Your task to perform on an android device: Open settings on Google Maps Image 0: 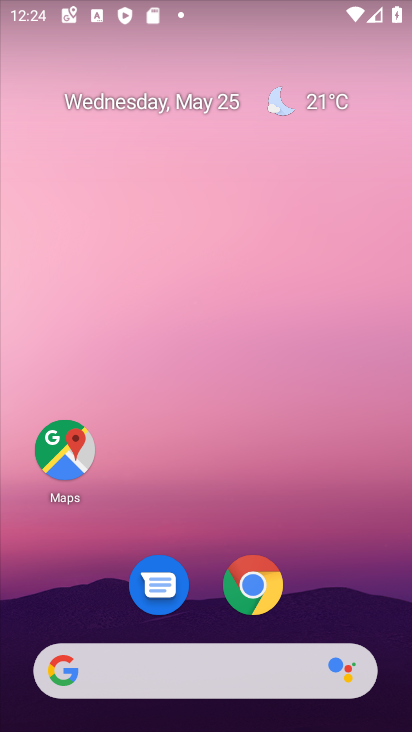
Step 0: click (255, 583)
Your task to perform on an android device: Open settings on Google Maps Image 1: 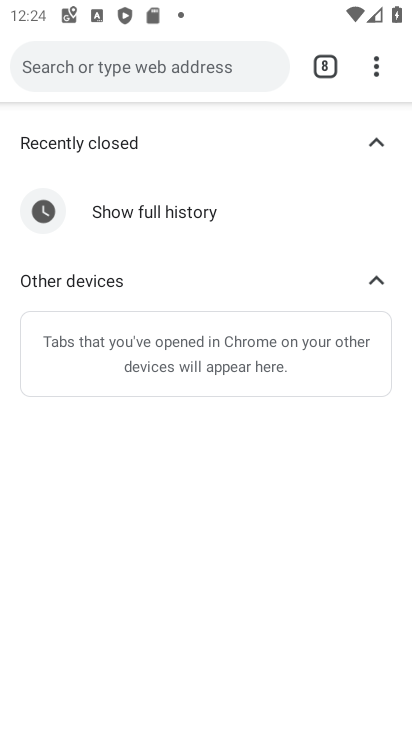
Step 1: click (373, 65)
Your task to perform on an android device: Open settings on Google Maps Image 2: 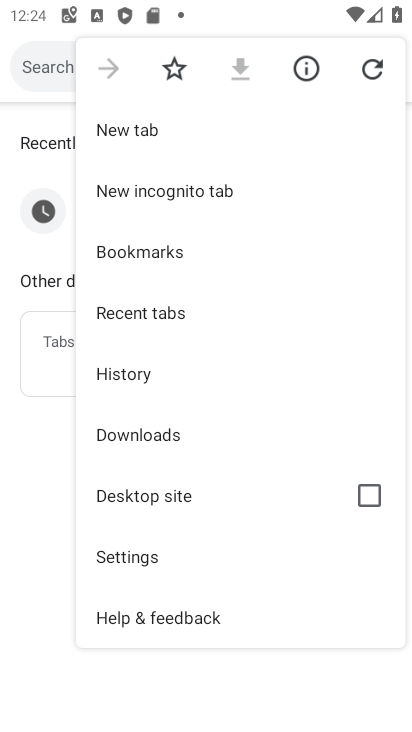
Step 2: click (178, 556)
Your task to perform on an android device: Open settings on Google Maps Image 3: 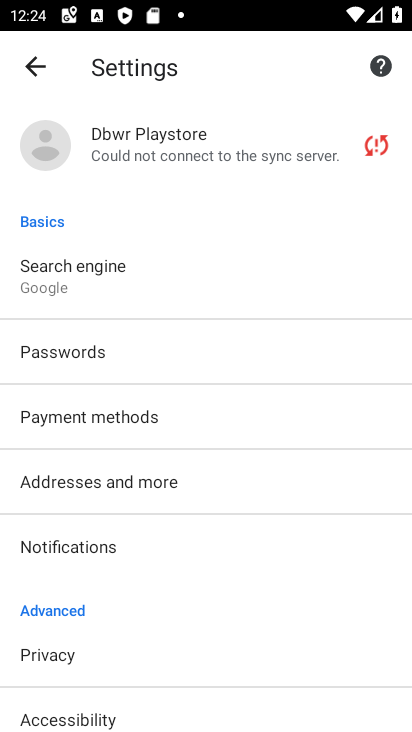
Step 3: task complete